Your task to perform on an android device: What is the recent news? Image 0: 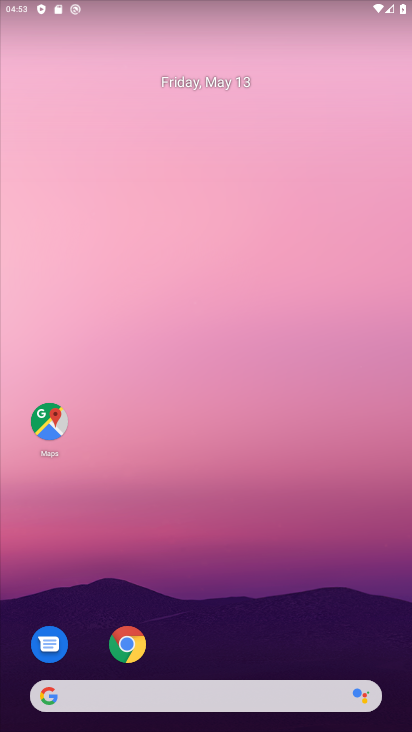
Step 0: click (172, 688)
Your task to perform on an android device: What is the recent news? Image 1: 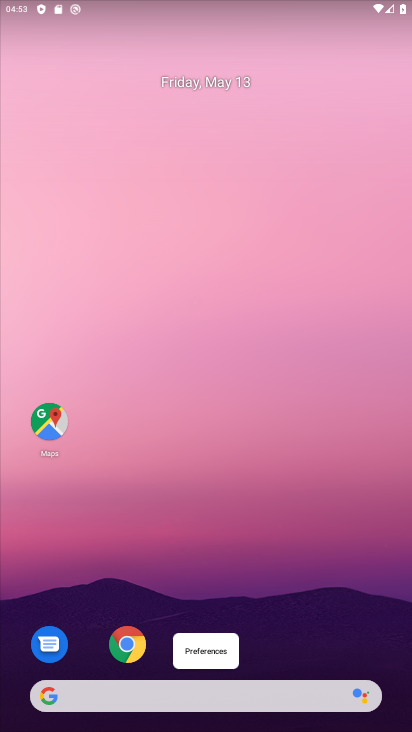
Step 1: click (215, 689)
Your task to perform on an android device: What is the recent news? Image 2: 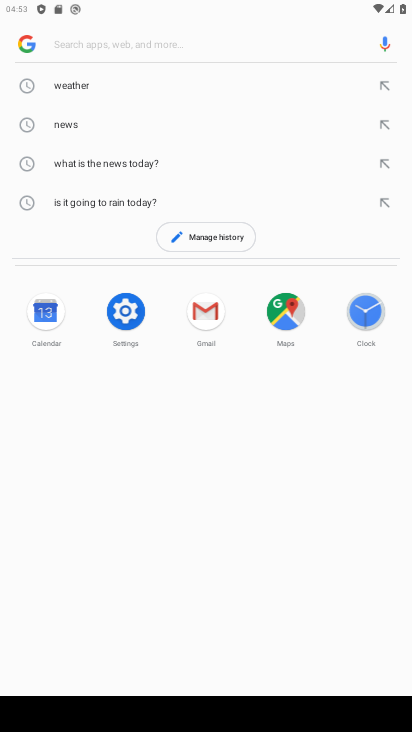
Step 2: click (87, 129)
Your task to perform on an android device: What is the recent news? Image 3: 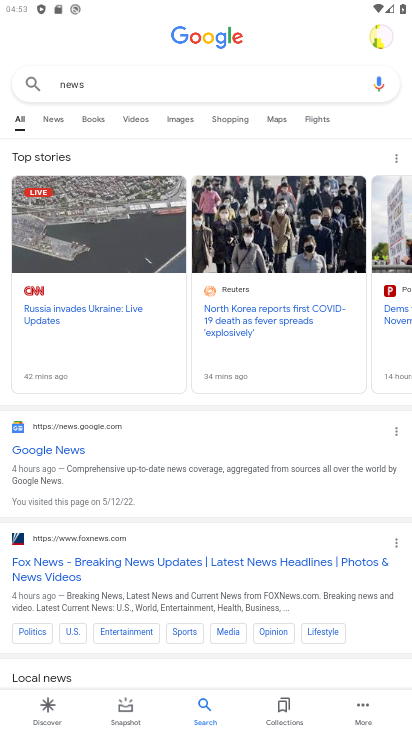
Step 3: task complete